Your task to perform on an android device: turn on showing notifications on the lock screen Image 0: 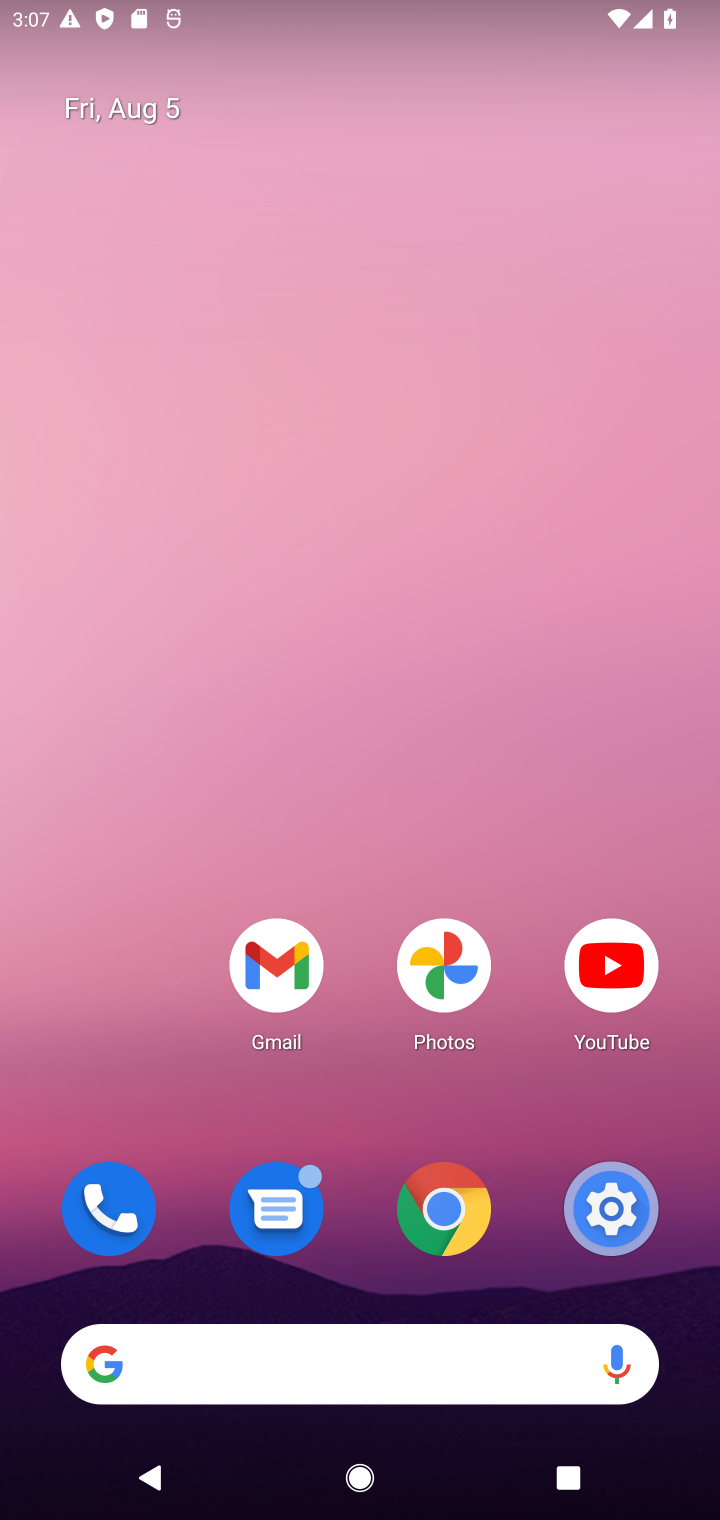
Step 0: drag from (369, 1080) to (441, 315)
Your task to perform on an android device: turn on showing notifications on the lock screen Image 1: 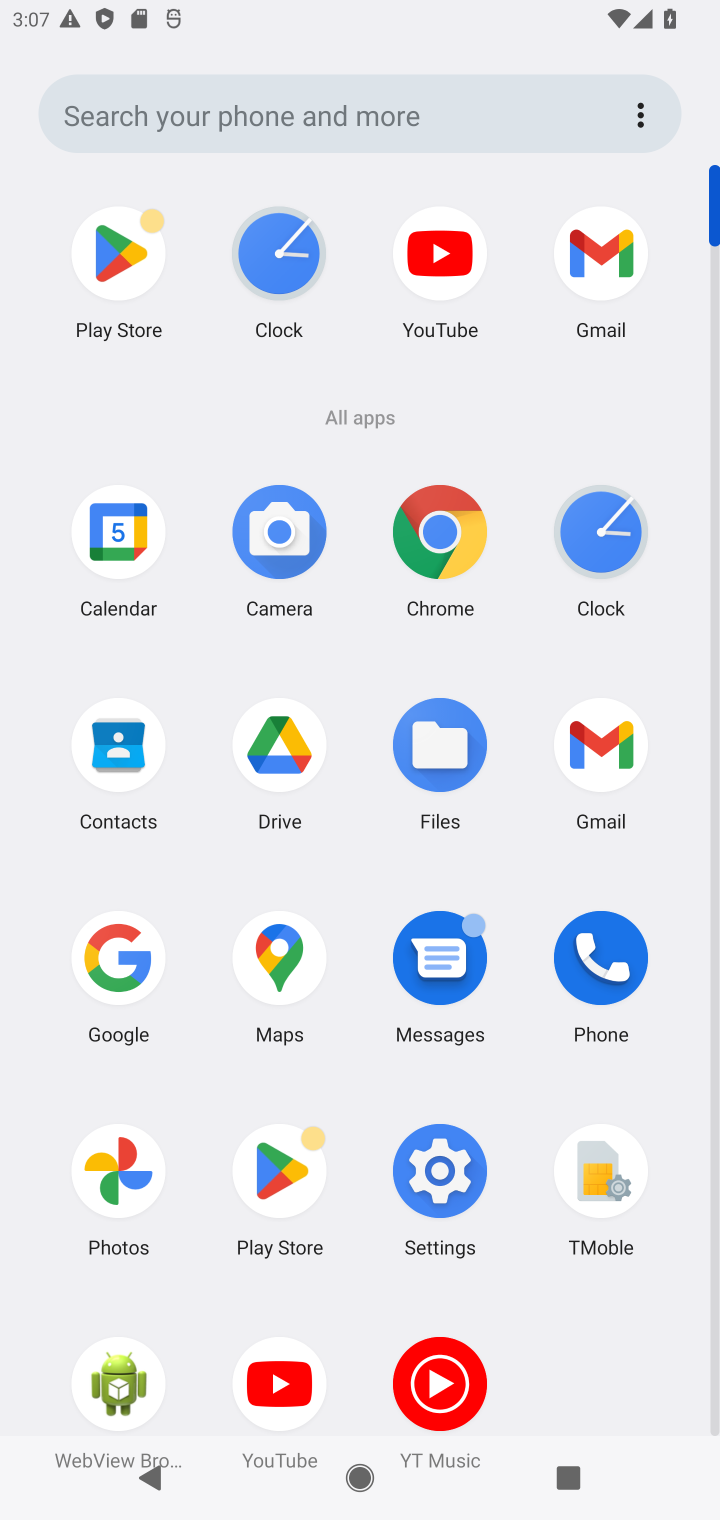
Step 1: click (432, 1188)
Your task to perform on an android device: turn on showing notifications on the lock screen Image 2: 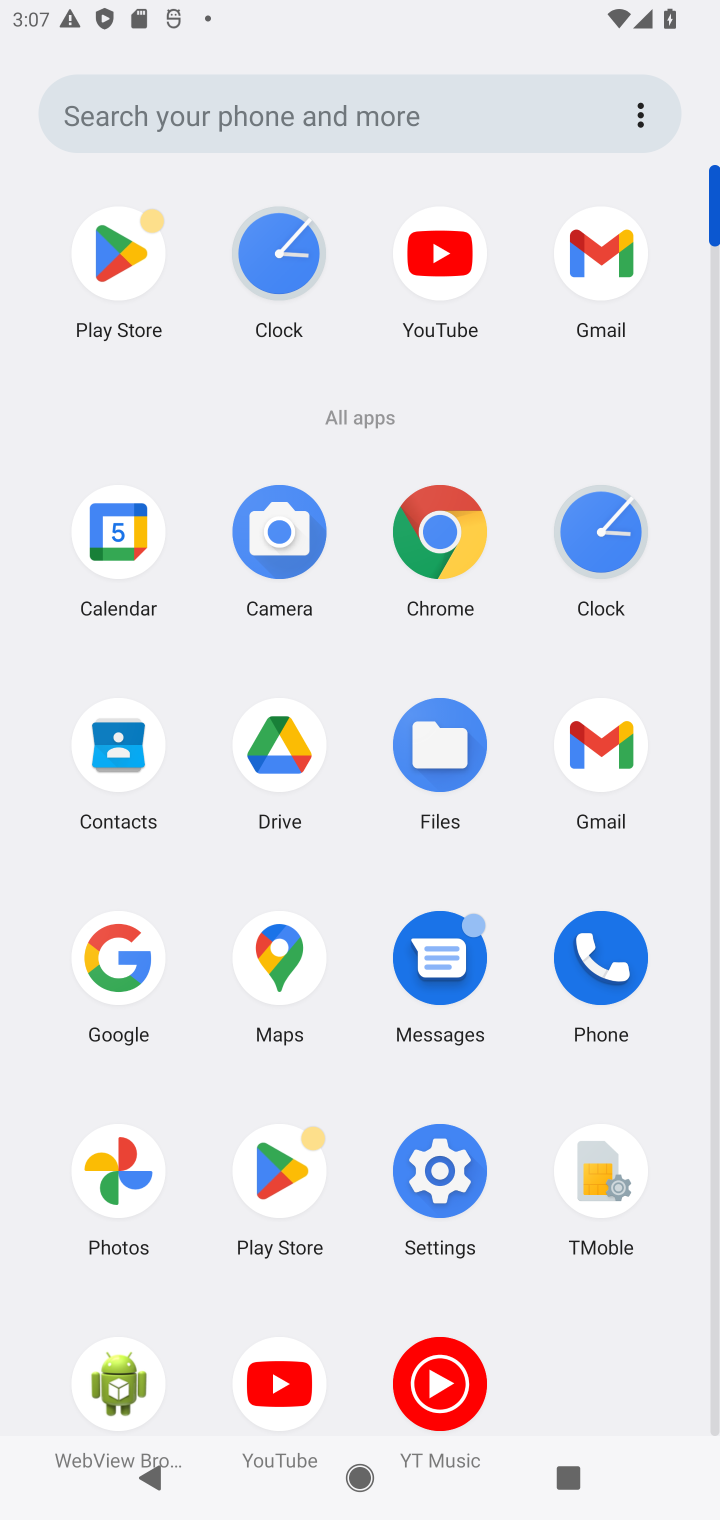
Step 2: click (450, 1188)
Your task to perform on an android device: turn on showing notifications on the lock screen Image 3: 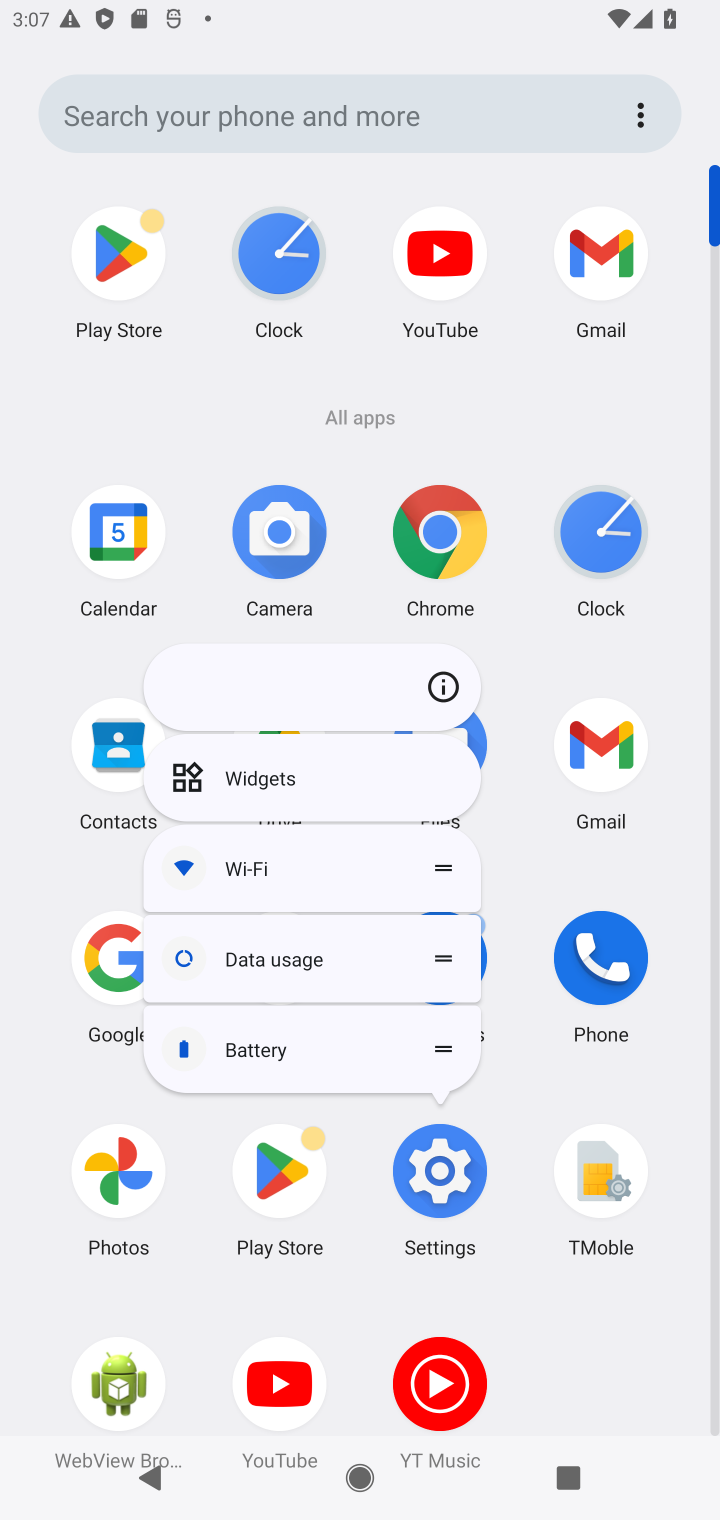
Step 3: click (446, 1178)
Your task to perform on an android device: turn on showing notifications on the lock screen Image 4: 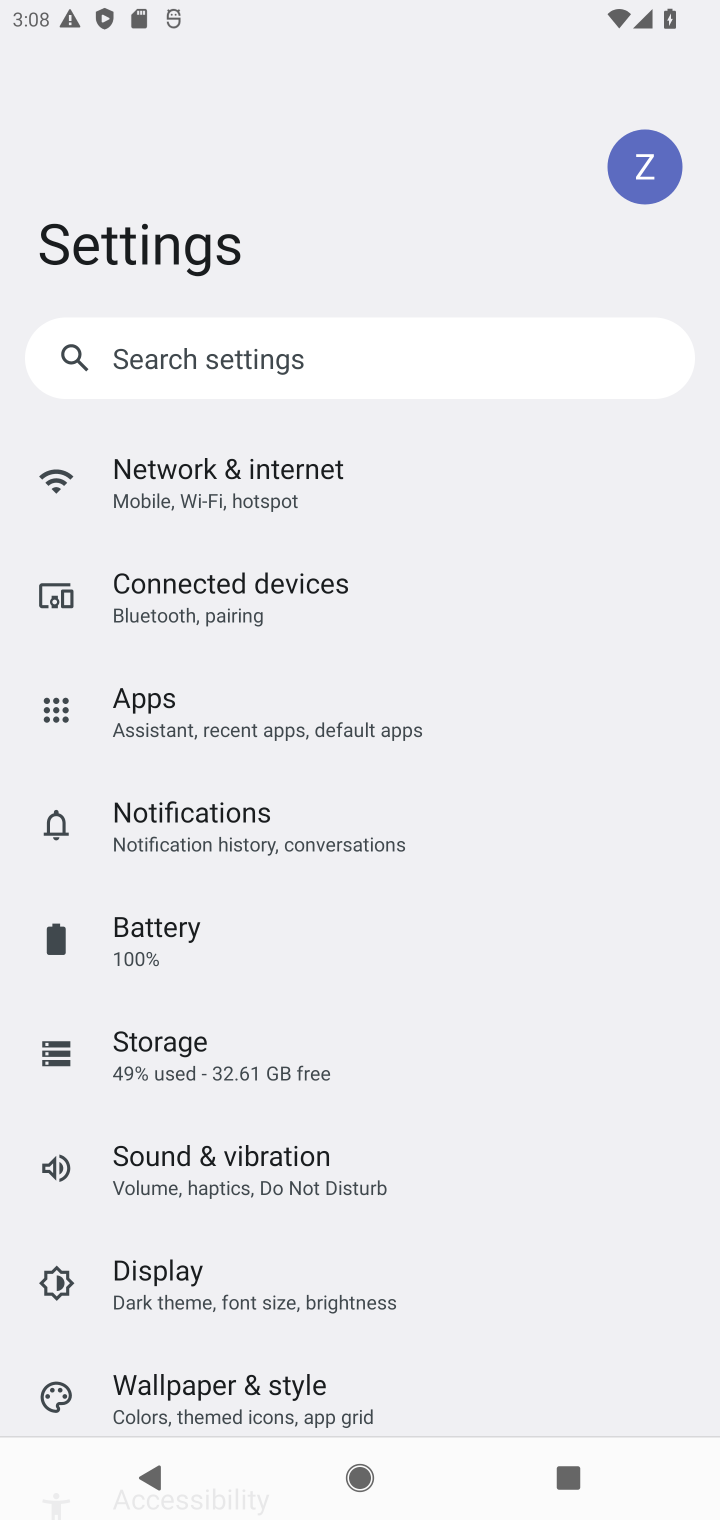
Step 4: click (374, 846)
Your task to perform on an android device: turn on showing notifications on the lock screen Image 5: 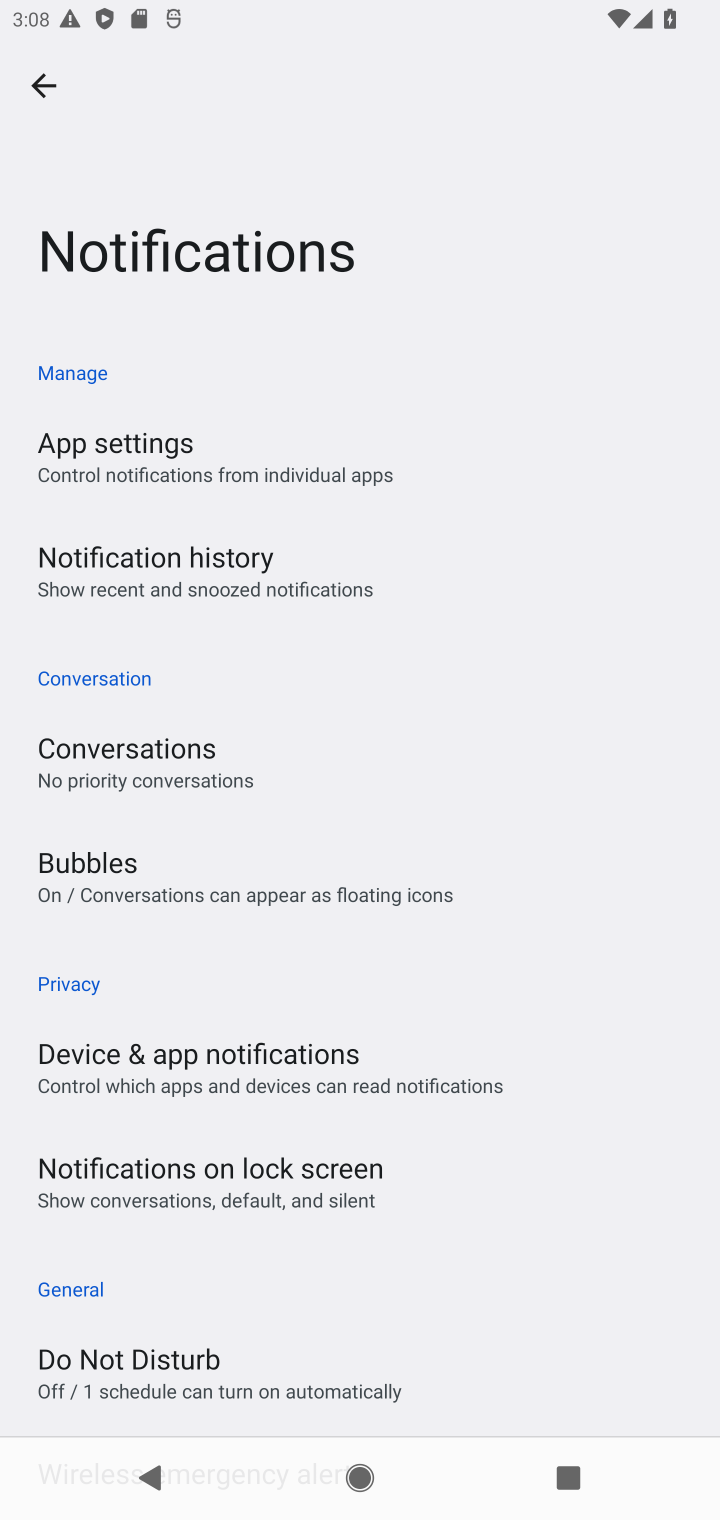
Step 5: click (370, 1187)
Your task to perform on an android device: turn on showing notifications on the lock screen Image 6: 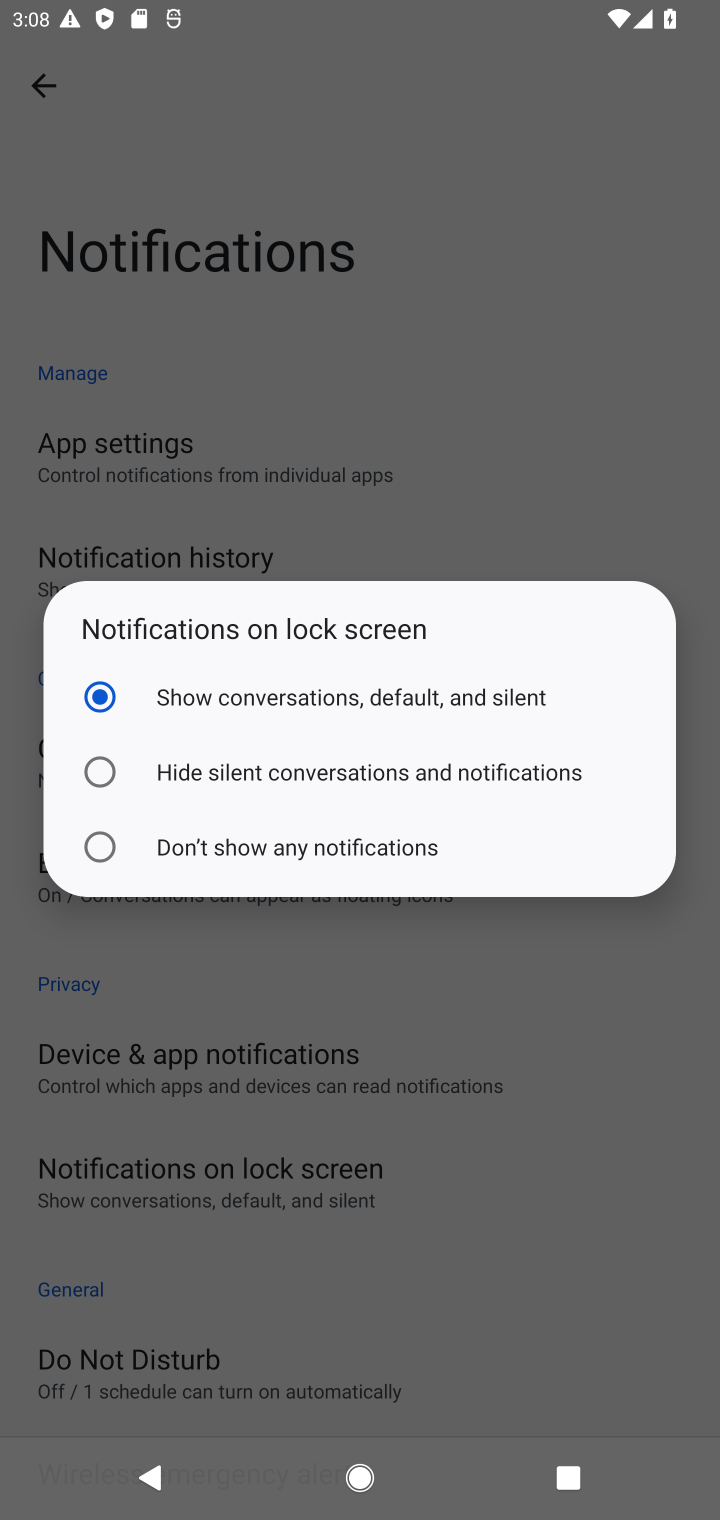
Step 6: task complete